Your task to perform on an android device: stop showing notifications on the lock screen Image 0: 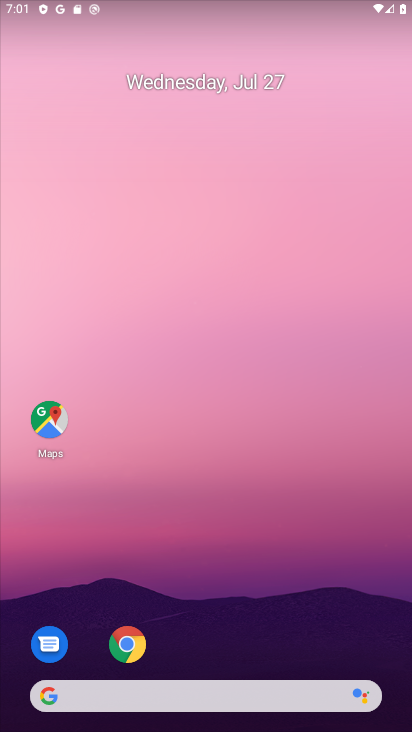
Step 0: drag from (304, 624) to (321, 136)
Your task to perform on an android device: stop showing notifications on the lock screen Image 1: 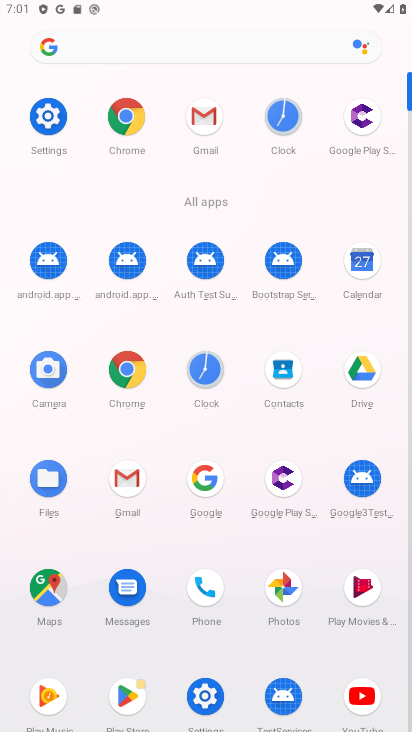
Step 1: click (56, 129)
Your task to perform on an android device: stop showing notifications on the lock screen Image 2: 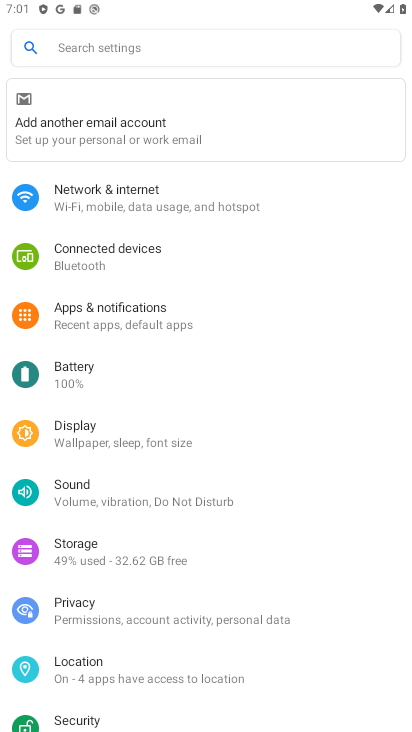
Step 2: task complete